Your task to perform on an android device: toggle sleep mode Image 0: 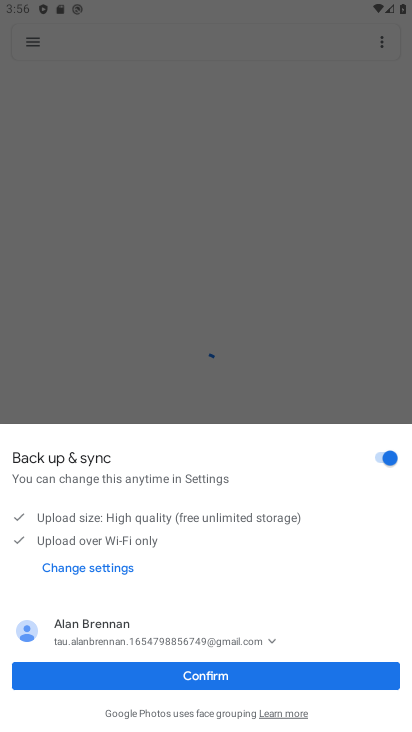
Step 0: press home button
Your task to perform on an android device: toggle sleep mode Image 1: 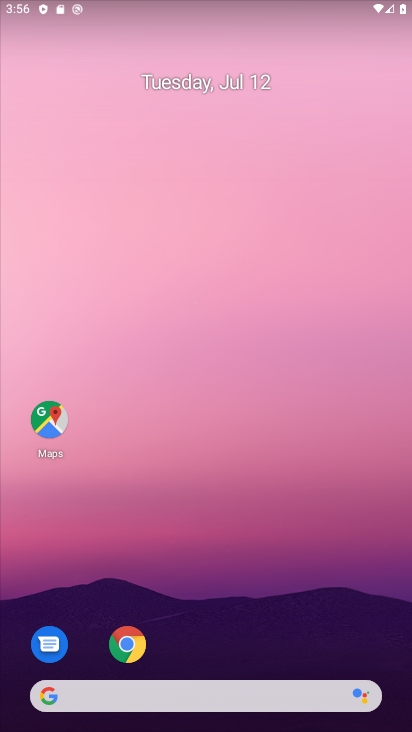
Step 1: drag from (332, 345) to (361, 256)
Your task to perform on an android device: toggle sleep mode Image 2: 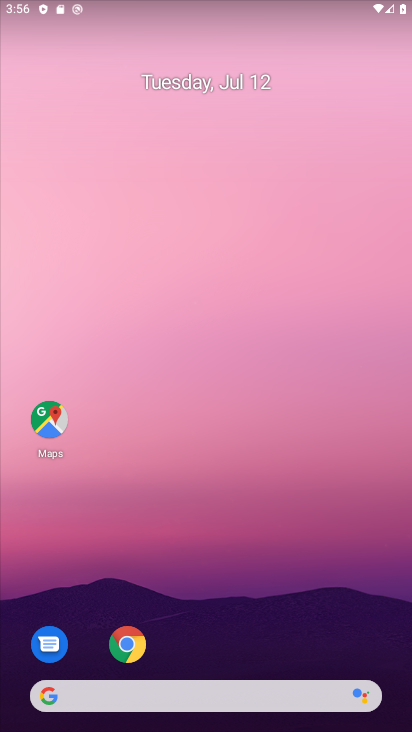
Step 2: drag from (219, 662) to (299, 253)
Your task to perform on an android device: toggle sleep mode Image 3: 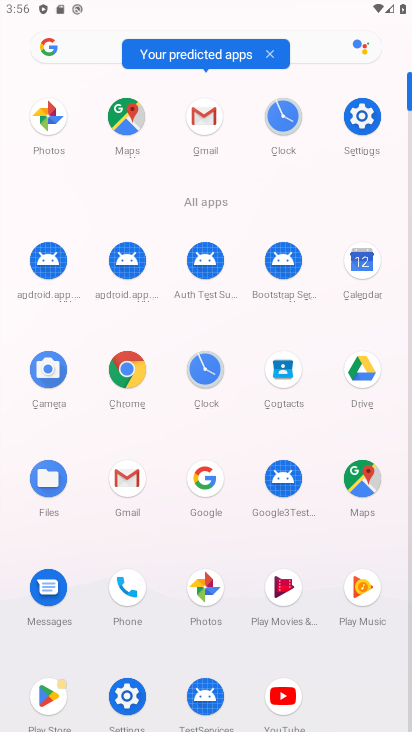
Step 3: click (136, 691)
Your task to perform on an android device: toggle sleep mode Image 4: 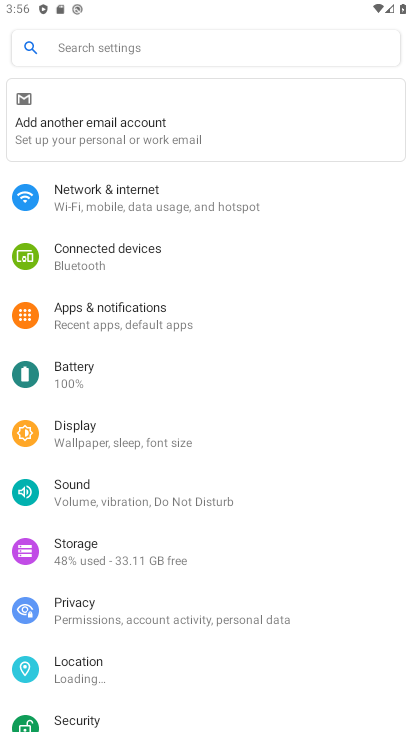
Step 4: click (135, 450)
Your task to perform on an android device: toggle sleep mode Image 5: 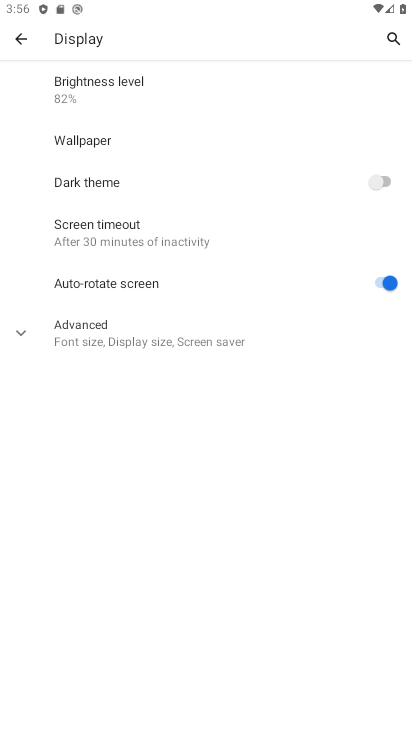
Step 5: click (188, 338)
Your task to perform on an android device: toggle sleep mode Image 6: 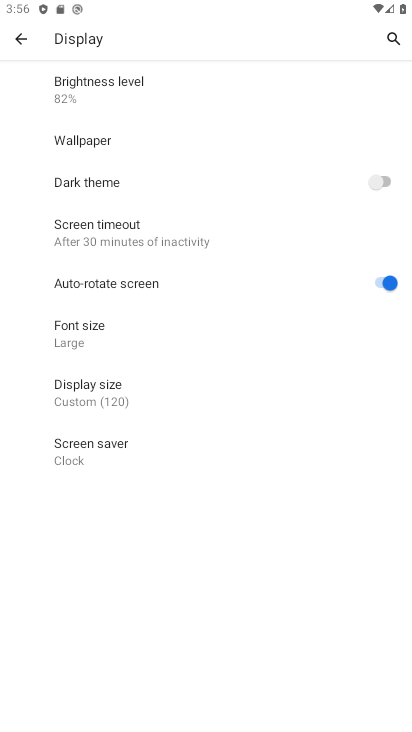
Step 6: task complete